Your task to perform on an android device: manage bookmarks in the chrome app Image 0: 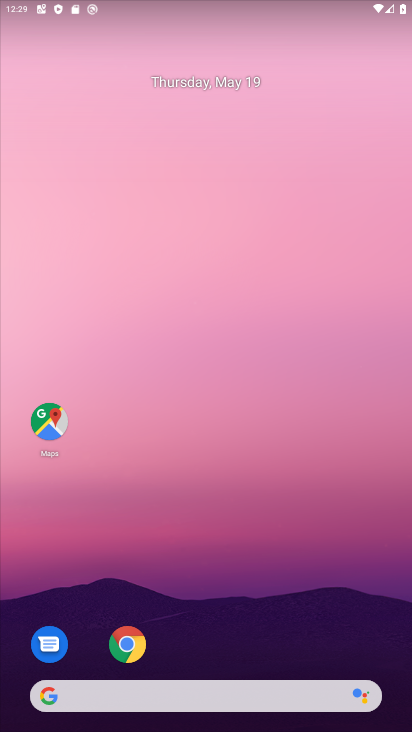
Step 0: drag from (321, 632) to (329, 216)
Your task to perform on an android device: manage bookmarks in the chrome app Image 1: 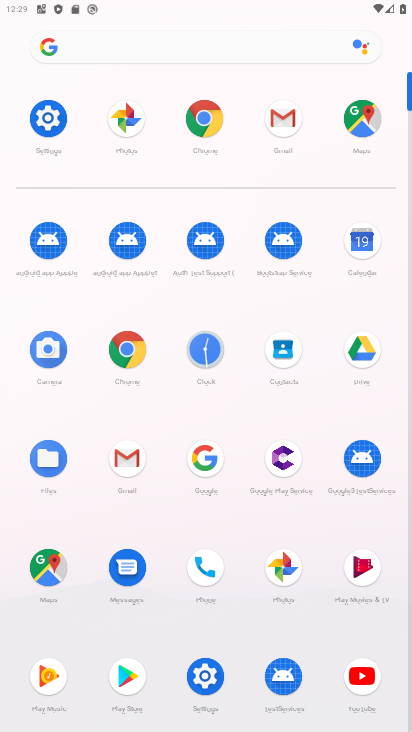
Step 1: click (114, 358)
Your task to perform on an android device: manage bookmarks in the chrome app Image 2: 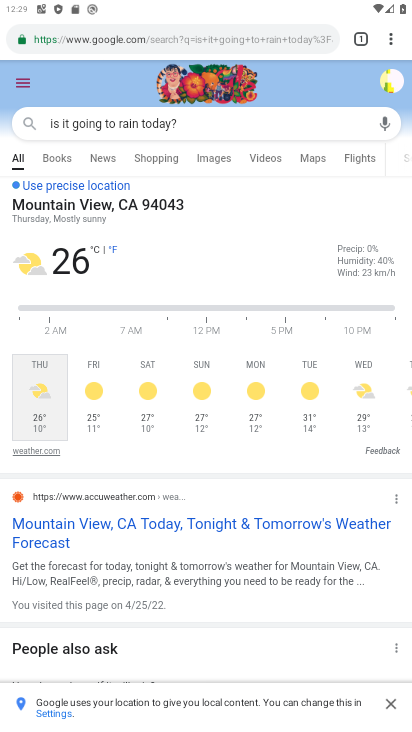
Step 2: task complete